Your task to perform on an android device: turn on location history Image 0: 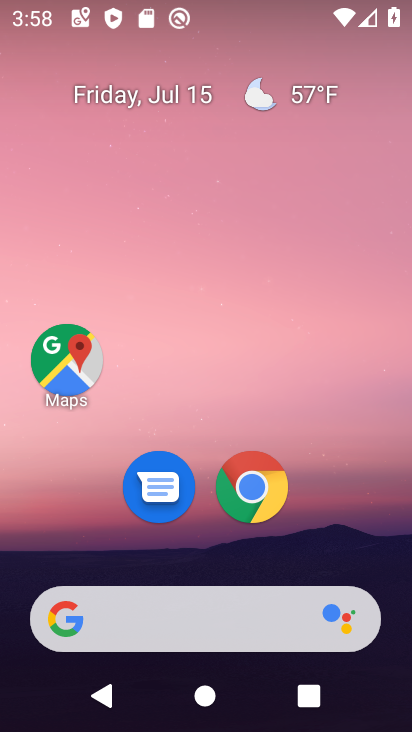
Step 0: drag from (216, 557) to (215, 178)
Your task to perform on an android device: turn on location history Image 1: 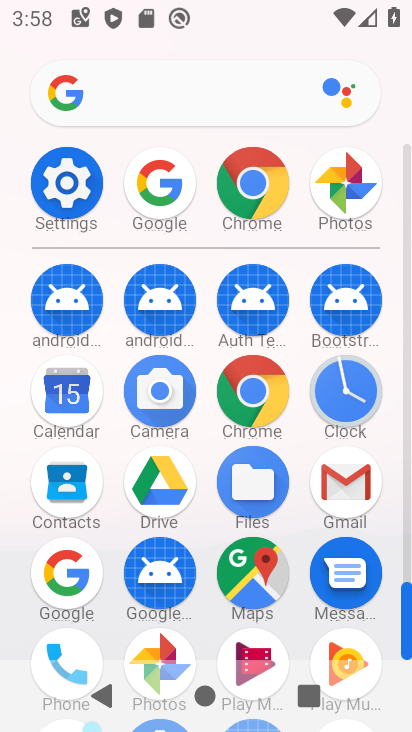
Step 1: click (95, 200)
Your task to perform on an android device: turn on location history Image 2: 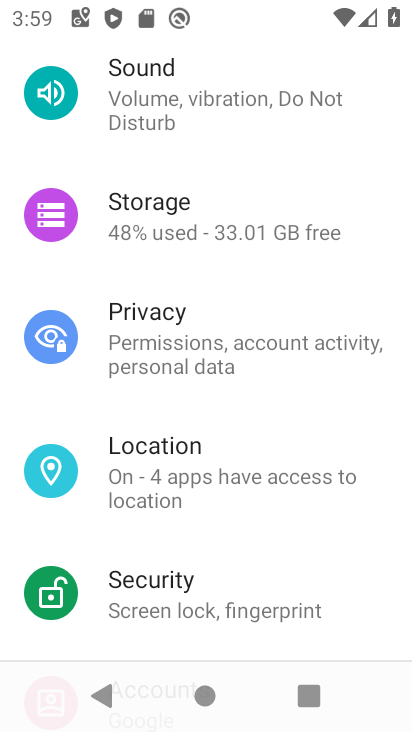
Step 2: click (193, 474)
Your task to perform on an android device: turn on location history Image 3: 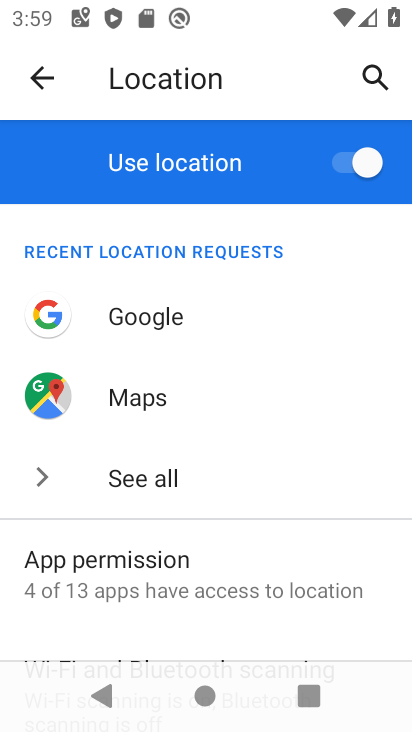
Step 3: drag from (240, 535) to (229, 121)
Your task to perform on an android device: turn on location history Image 4: 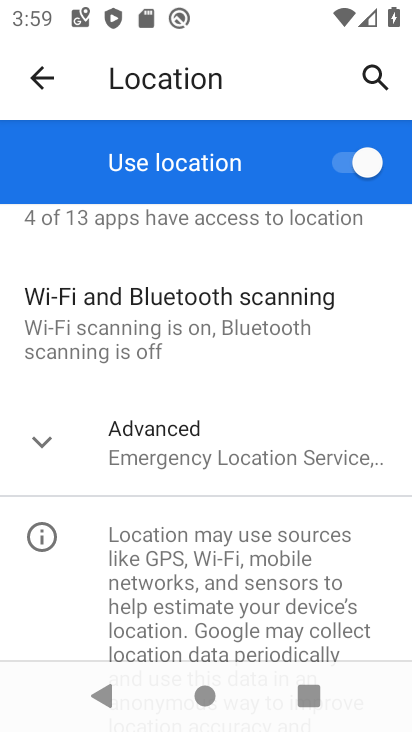
Step 4: click (146, 452)
Your task to perform on an android device: turn on location history Image 5: 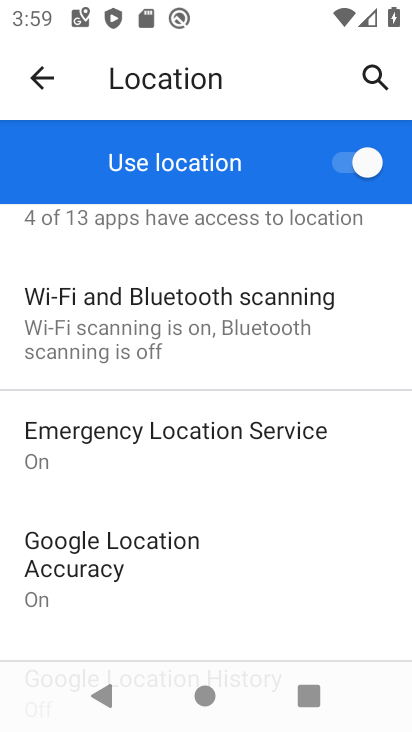
Step 5: drag from (165, 492) to (211, 200)
Your task to perform on an android device: turn on location history Image 6: 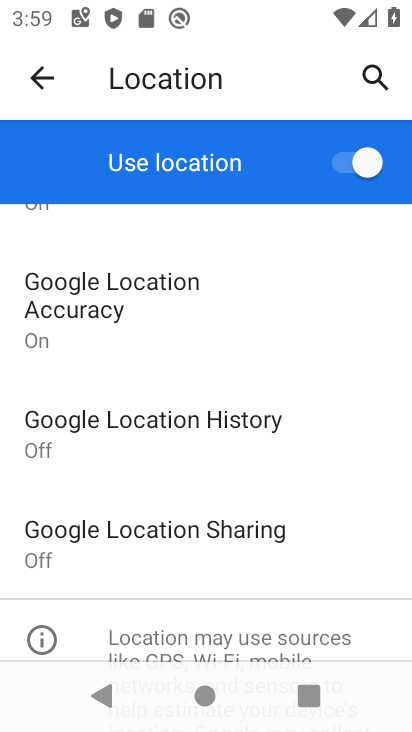
Step 6: click (192, 452)
Your task to perform on an android device: turn on location history Image 7: 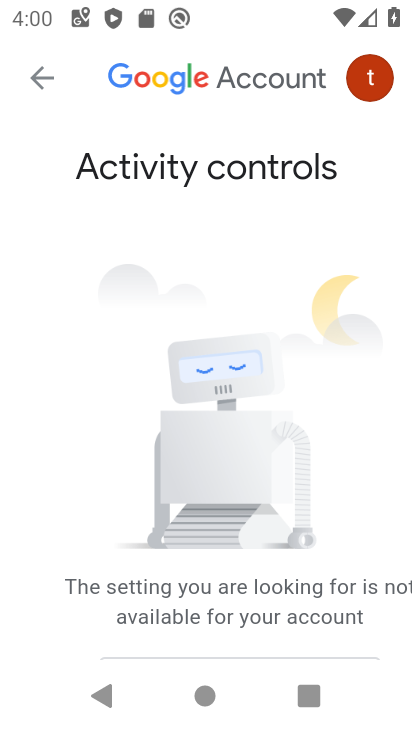
Step 7: task complete